Your task to perform on an android device: add a label to a message in the gmail app Image 0: 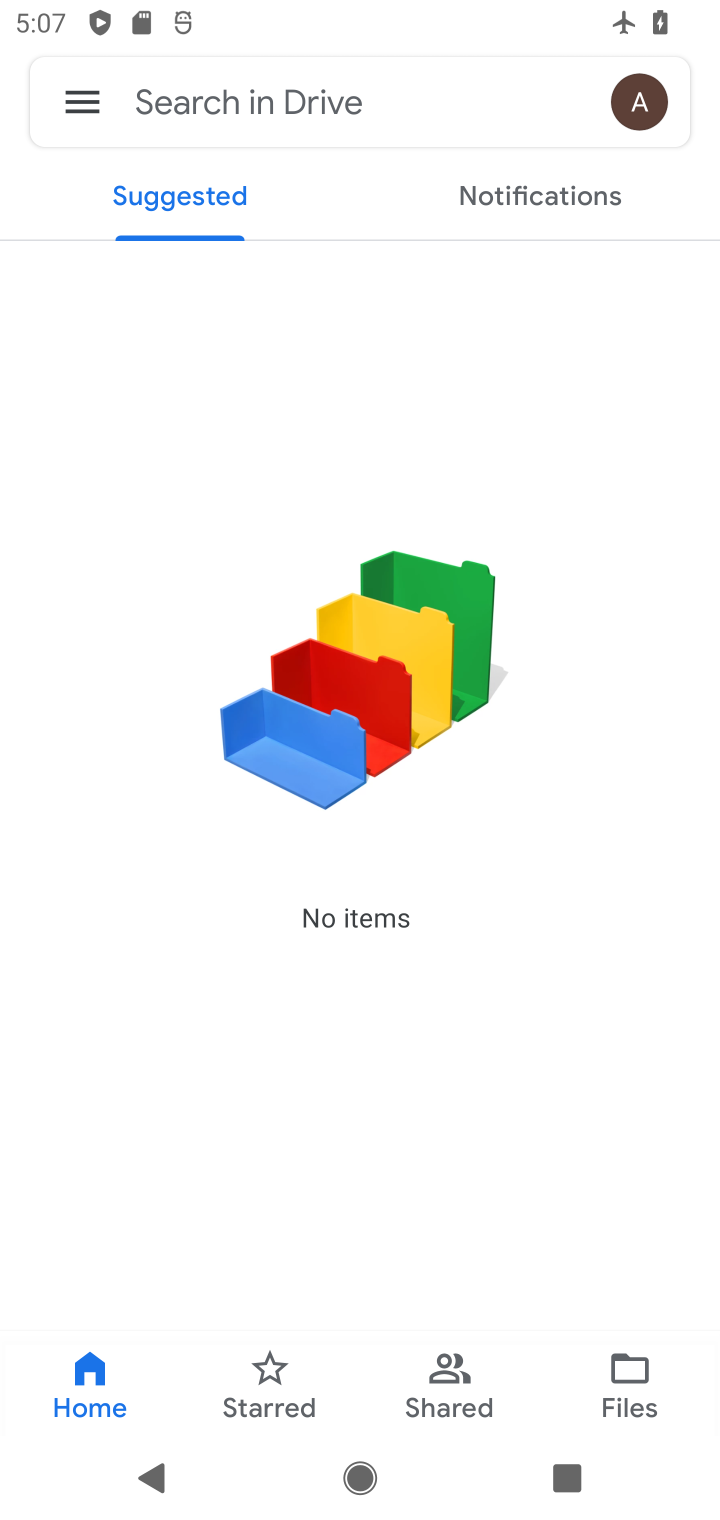
Step 0: press home button
Your task to perform on an android device: add a label to a message in the gmail app Image 1: 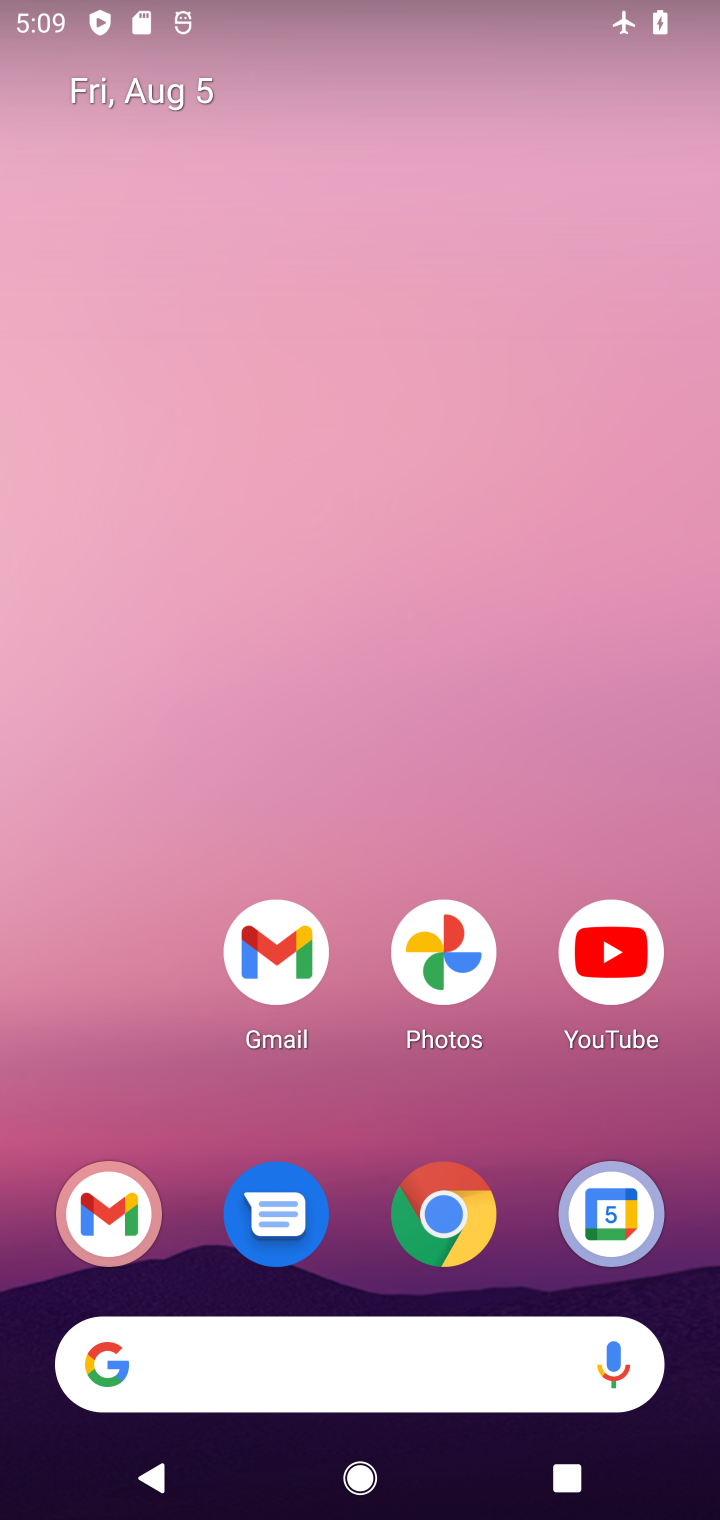
Step 1: click (298, 968)
Your task to perform on an android device: add a label to a message in the gmail app Image 2: 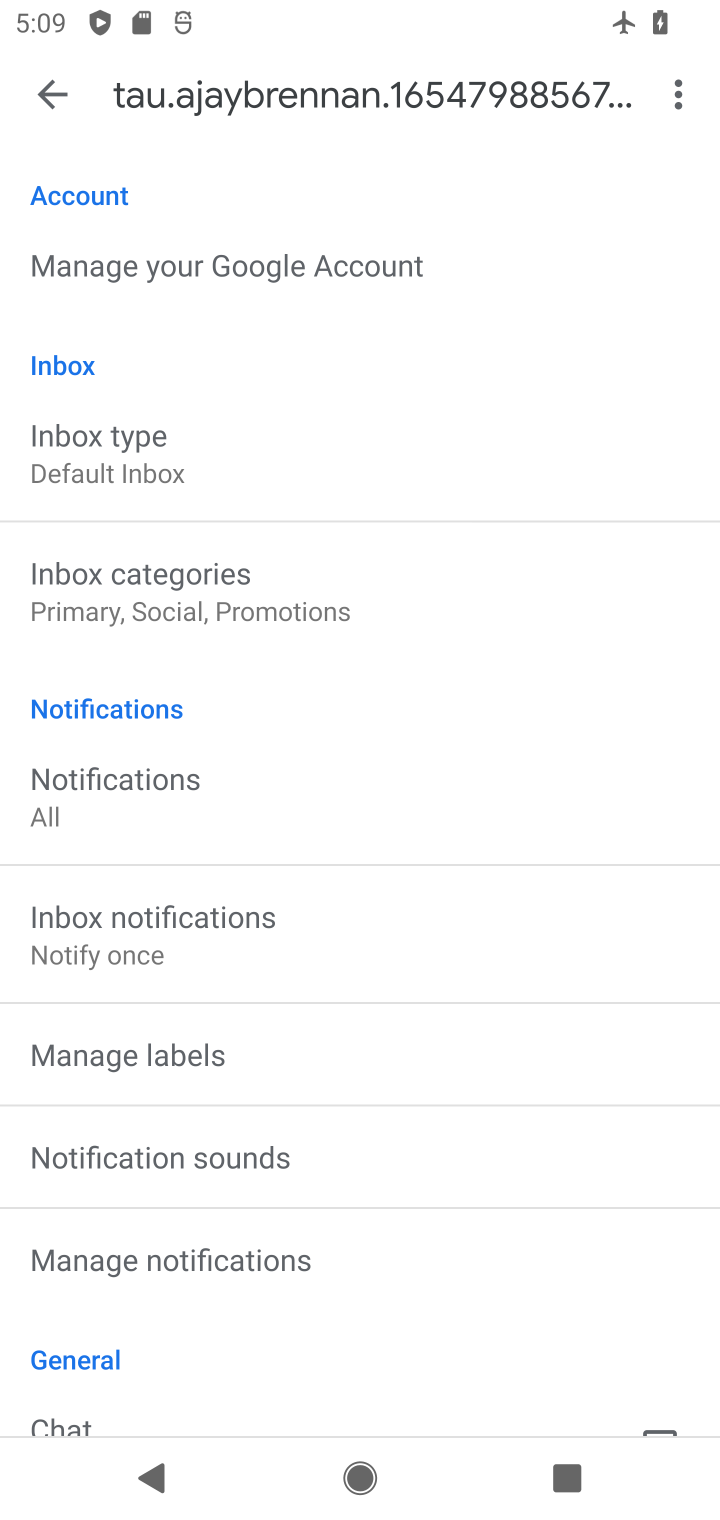
Step 2: click (42, 85)
Your task to perform on an android device: add a label to a message in the gmail app Image 3: 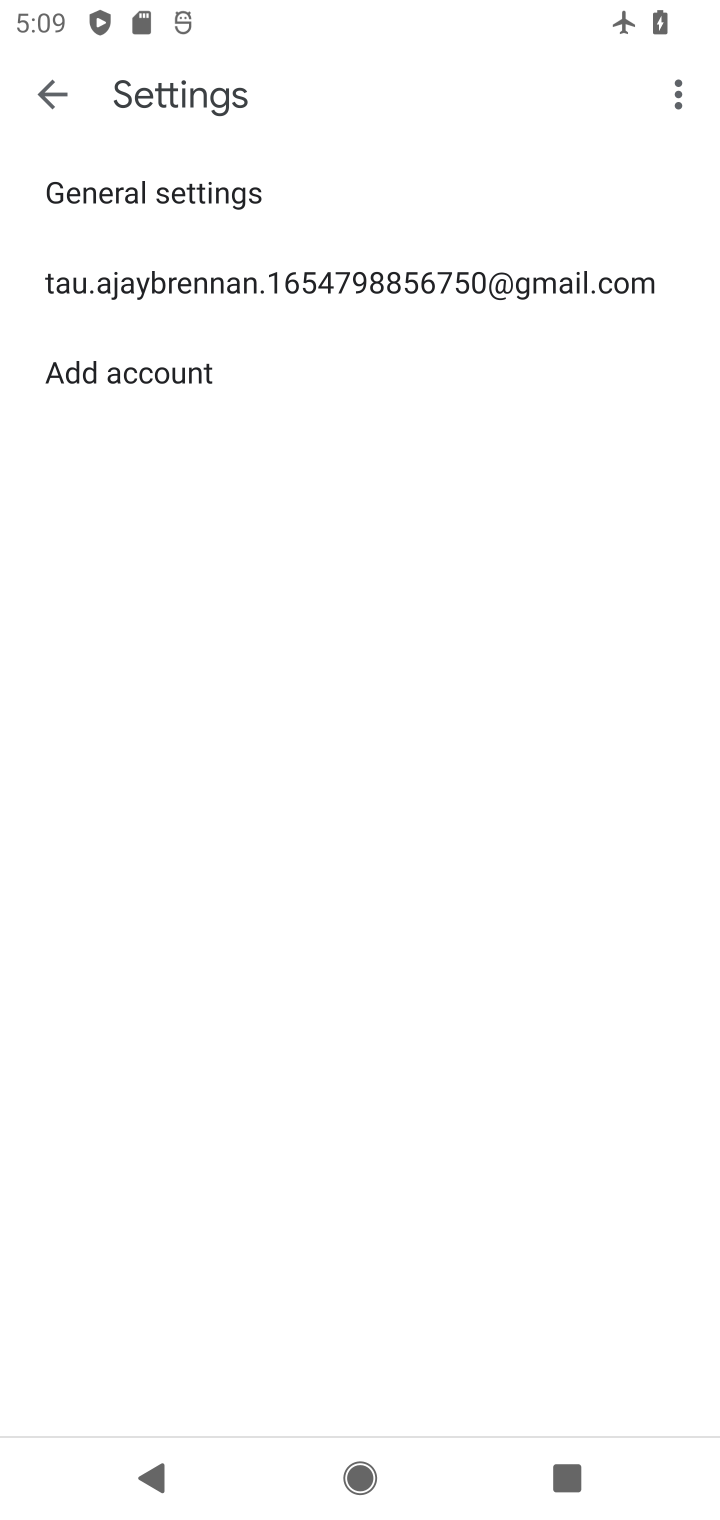
Step 3: click (42, 85)
Your task to perform on an android device: add a label to a message in the gmail app Image 4: 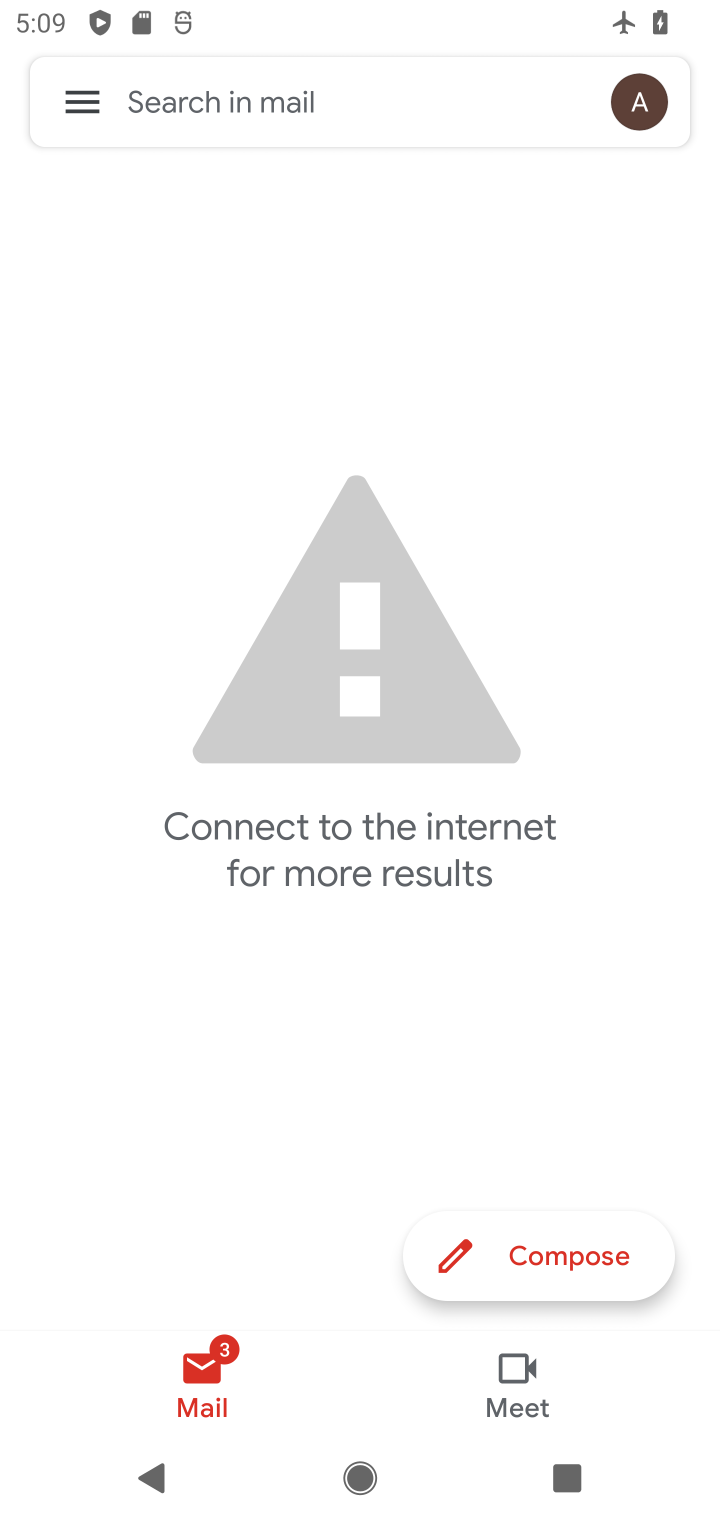
Step 4: task complete